Your task to perform on an android device: set the timer Image 0: 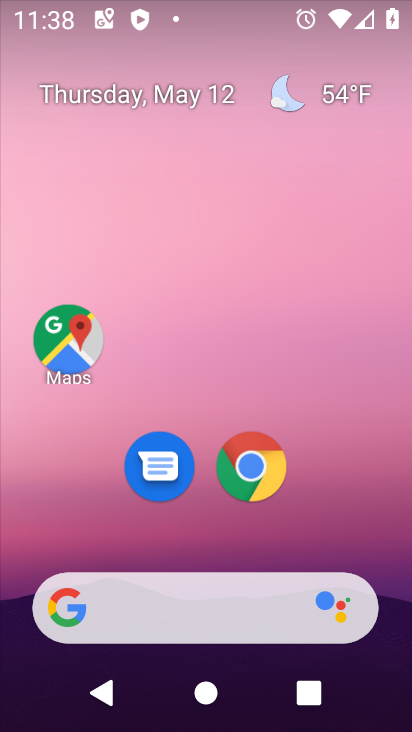
Step 0: drag from (377, 516) to (341, 132)
Your task to perform on an android device: set the timer Image 1: 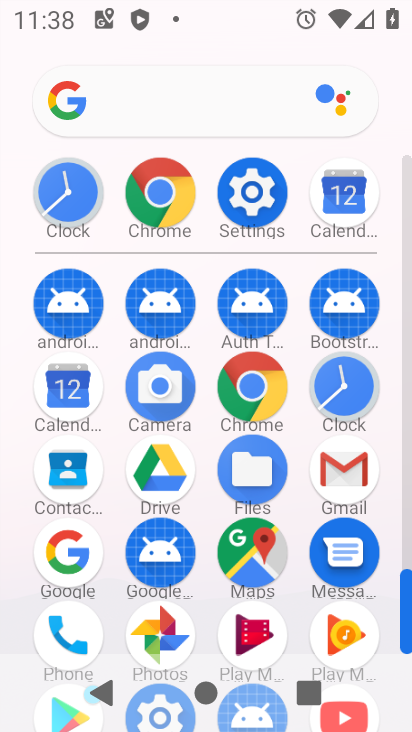
Step 1: click (335, 396)
Your task to perform on an android device: set the timer Image 2: 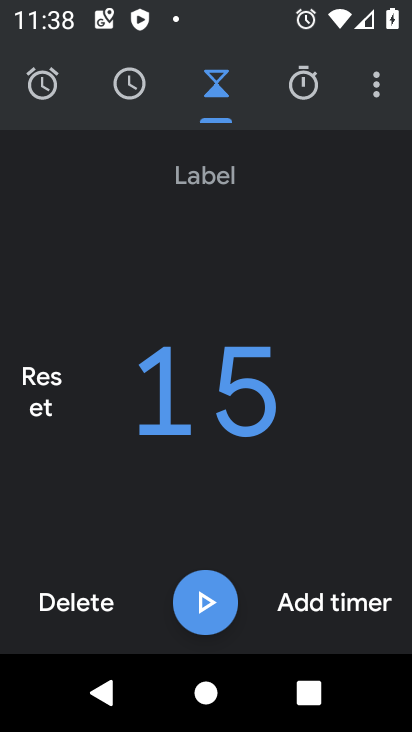
Step 2: click (210, 595)
Your task to perform on an android device: set the timer Image 3: 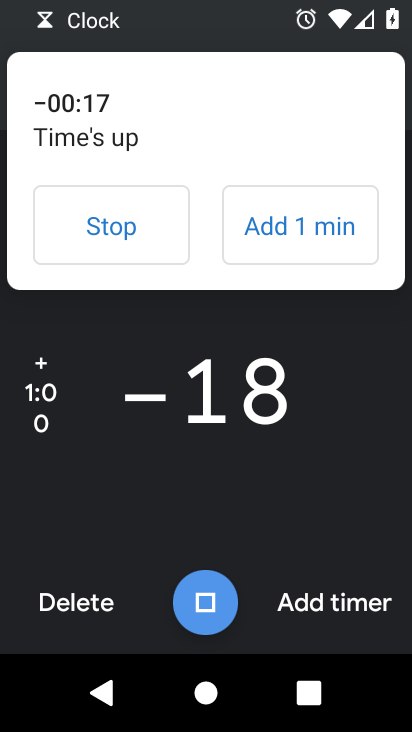
Step 3: click (96, 232)
Your task to perform on an android device: set the timer Image 4: 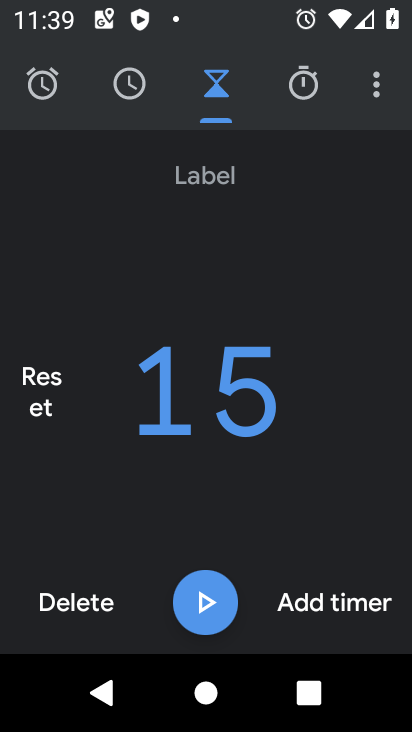
Step 4: task complete